Your task to perform on an android device: change alarm snooze length Image 0: 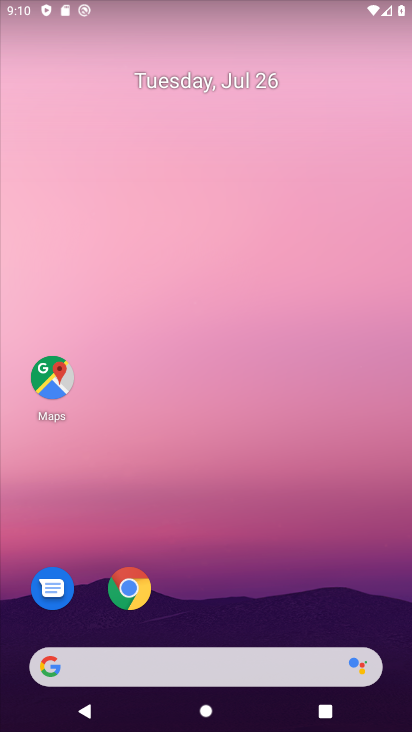
Step 0: drag from (220, 654) to (199, 304)
Your task to perform on an android device: change alarm snooze length Image 1: 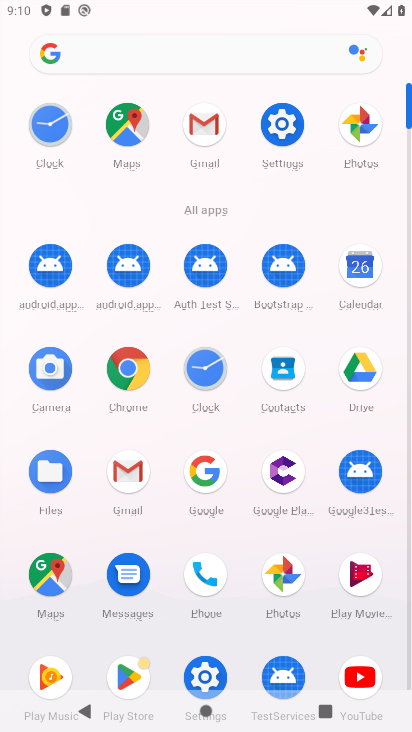
Step 1: click (215, 354)
Your task to perform on an android device: change alarm snooze length Image 2: 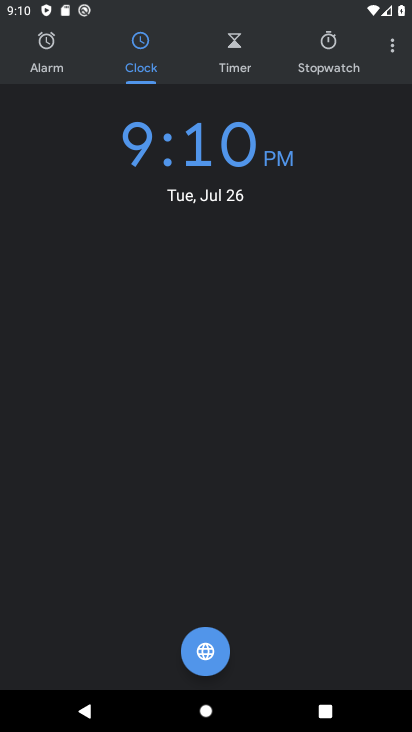
Step 2: click (386, 52)
Your task to perform on an android device: change alarm snooze length Image 3: 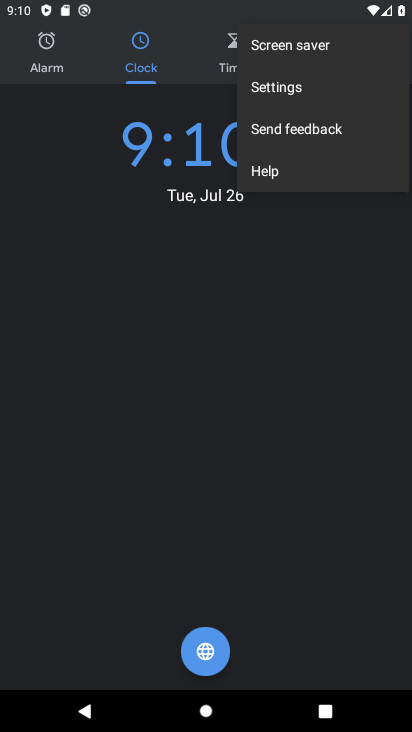
Step 3: click (279, 95)
Your task to perform on an android device: change alarm snooze length Image 4: 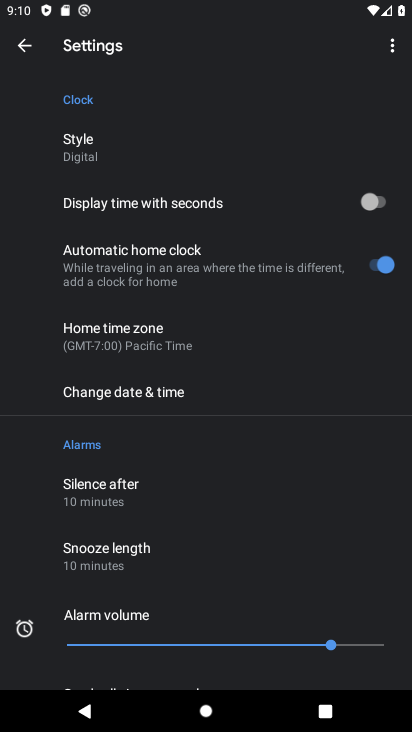
Step 4: click (115, 539)
Your task to perform on an android device: change alarm snooze length Image 5: 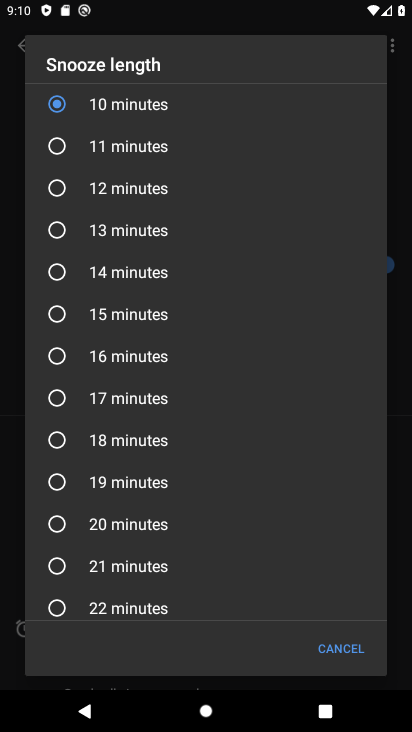
Step 5: click (142, 380)
Your task to perform on an android device: change alarm snooze length Image 6: 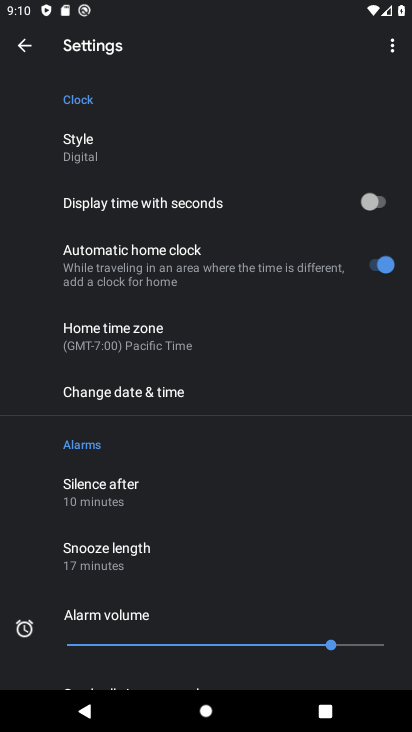
Step 6: task complete